Your task to perform on an android device: search for starred emails in the gmail app Image 0: 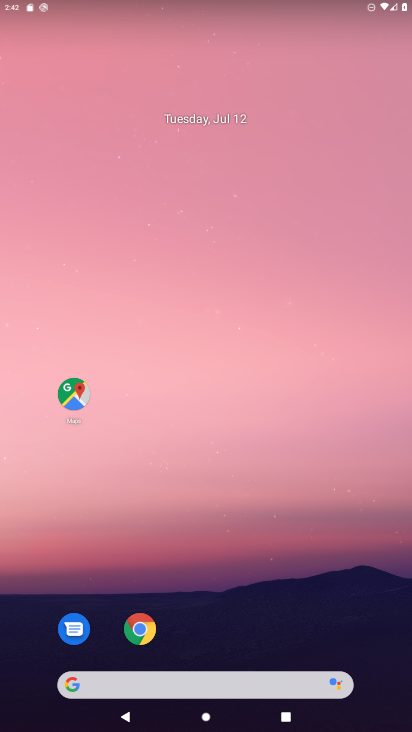
Step 0: drag from (184, 682) to (214, 129)
Your task to perform on an android device: search for starred emails in the gmail app Image 1: 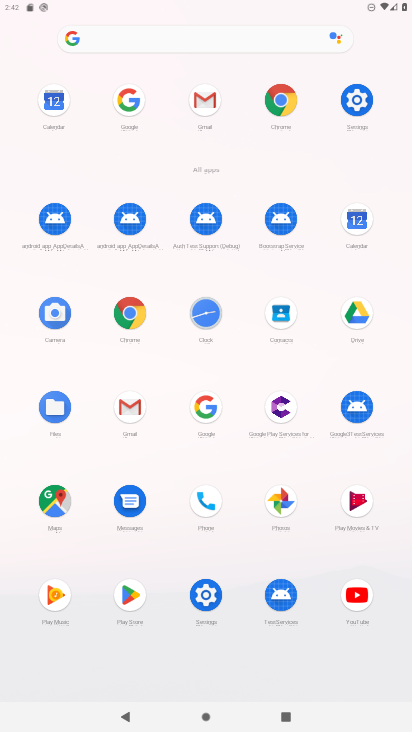
Step 1: click (206, 98)
Your task to perform on an android device: search for starred emails in the gmail app Image 2: 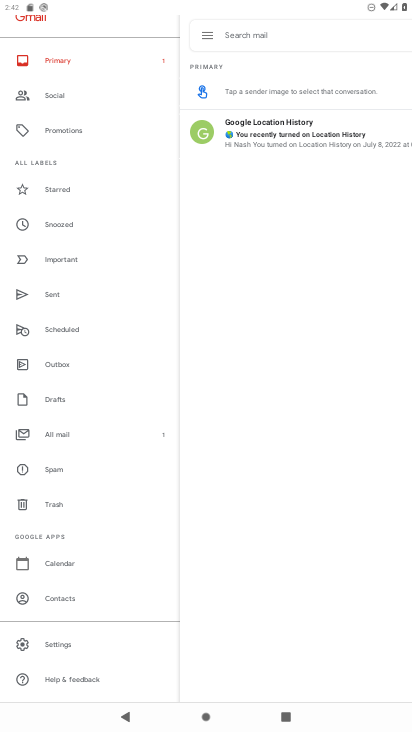
Step 2: click (64, 194)
Your task to perform on an android device: search for starred emails in the gmail app Image 3: 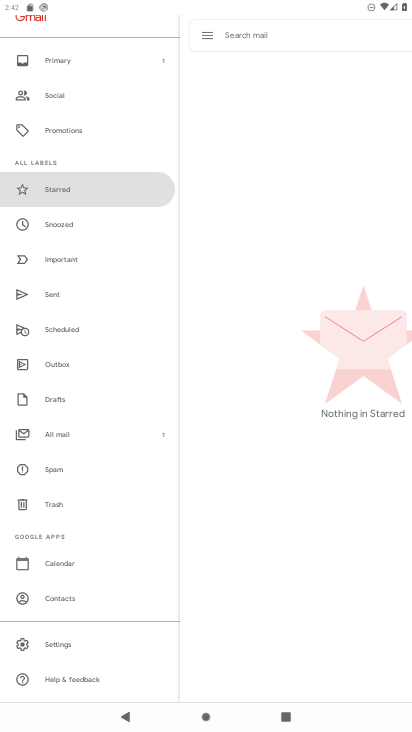
Step 3: click (63, 62)
Your task to perform on an android device: search for starred emails in the gmail app Image 4: 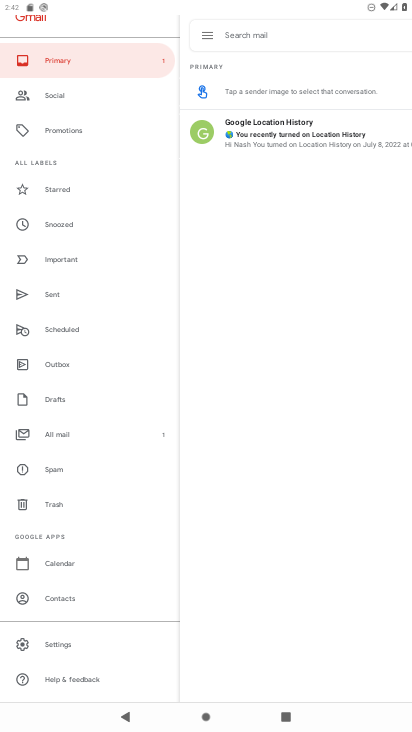
Step 4: click (60, 440)
Your task to perform on an android device: search for starred emails in the gmail app Image 5: 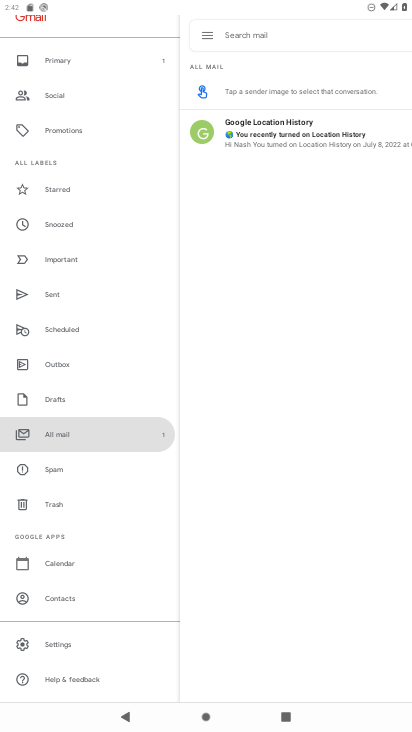
Step 5: click (260, 143)
Your task to perform on an android device: search for starred emails in the gmail app Image 6: 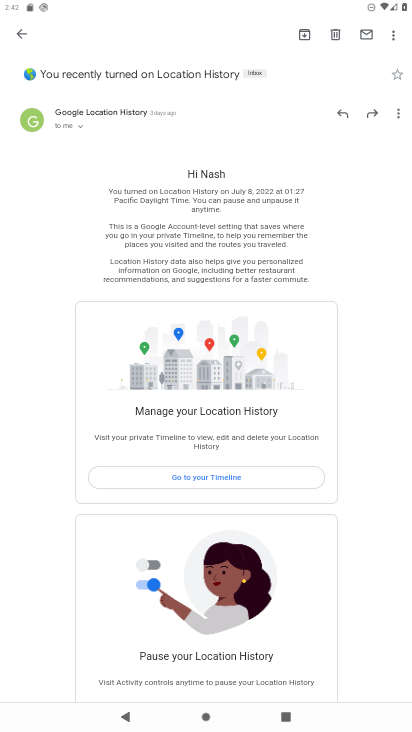
Step 6: task complete